Your task to perform on an android device: visit the assistant section in the google photos Image 0: 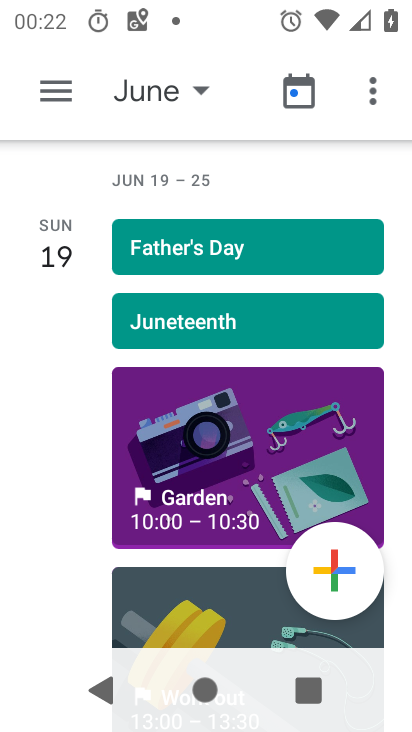
Step 0: press home button
Your task to perform on an android device: visit the assistant section in the google photos Image 1: 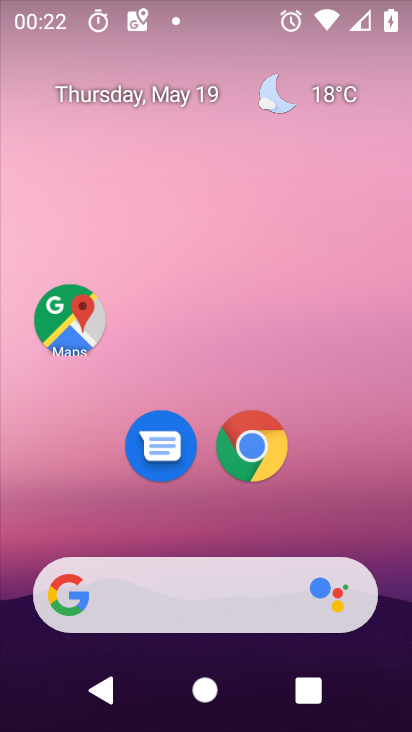
Step 1: drag from (143, 616) to (277, 260)
Your task to perform on an android device: visit the assistant section in the google photos Image 2: 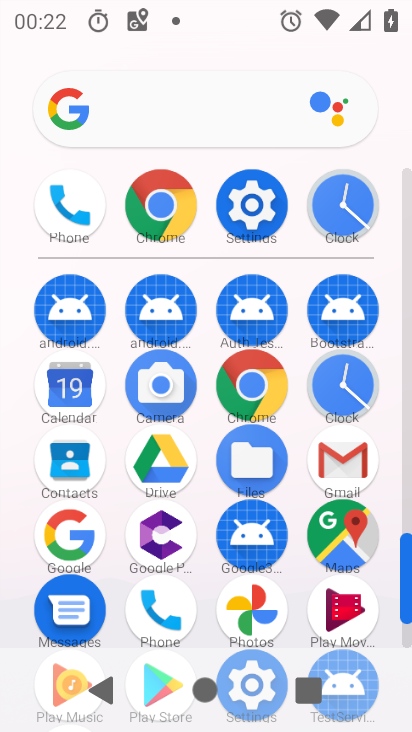
Step 2: click (250, 619)
Your task to perform on an android device: visit the assistant section in the google photos Image 3: 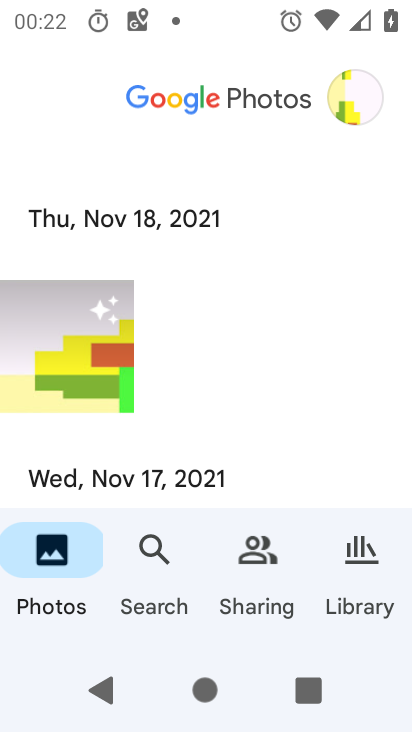
Step 3: click (139, 594)
Your task to perform on an android device: visit the assistant section in the google photos Image 4: 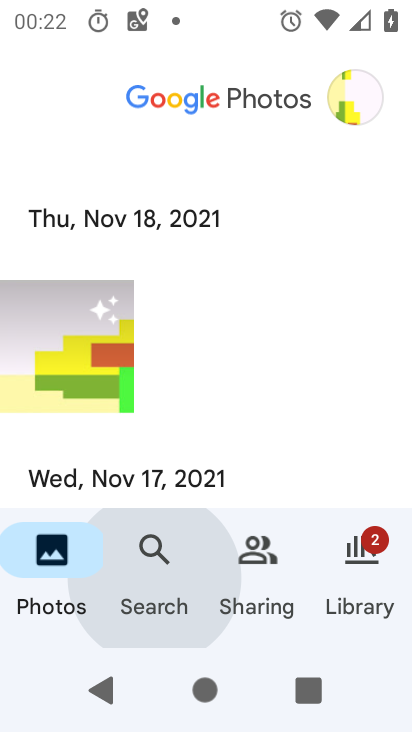
Step 4: click (150, 608)
Your task to perform on an android device: visit the assistant section in the google photos Image 5: 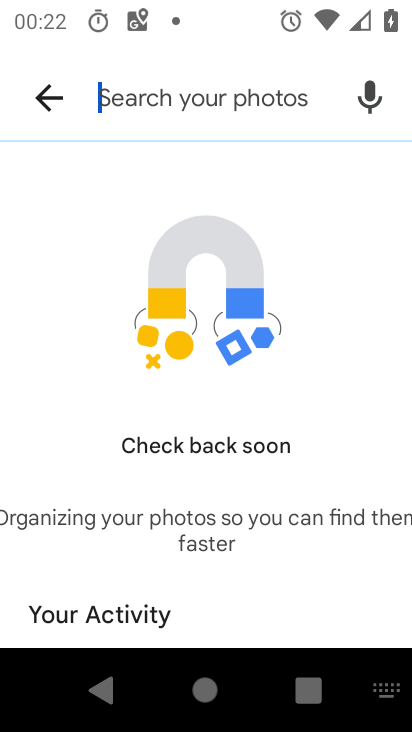
Step 5: task complete